Your task to perform on an android device: Go to Google Image 0: 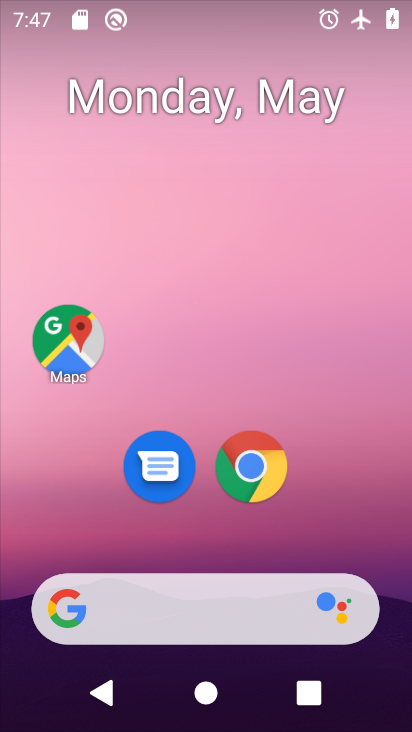
Step 0: drag from (258, 670) to (251, 99)
Your task to perform on an android device: Go to Google Image 1: 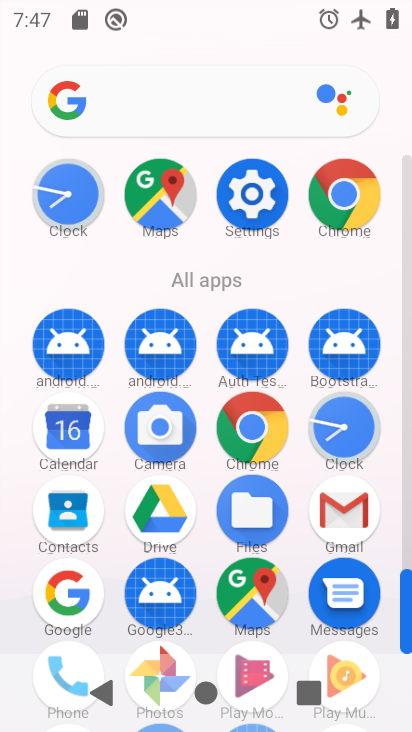
Step 1: drag from (255, 628) to (181, 125)
Your task to perform on an android device: Go to Google Image 2: 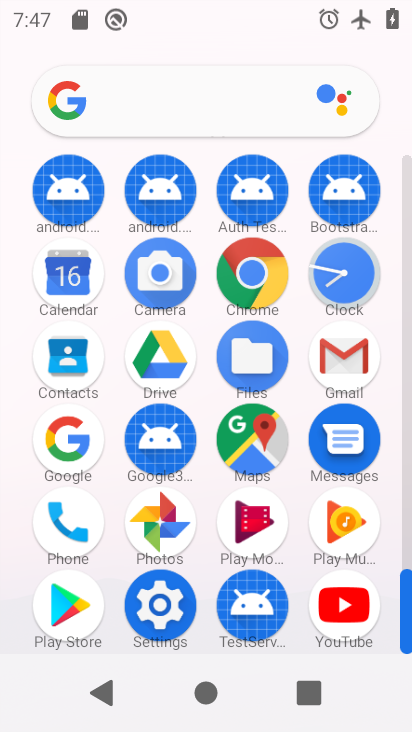
Step 2: drag from (240, 636) to (161, 131)
Your task to perform on an android device: Go to Google Image 3: 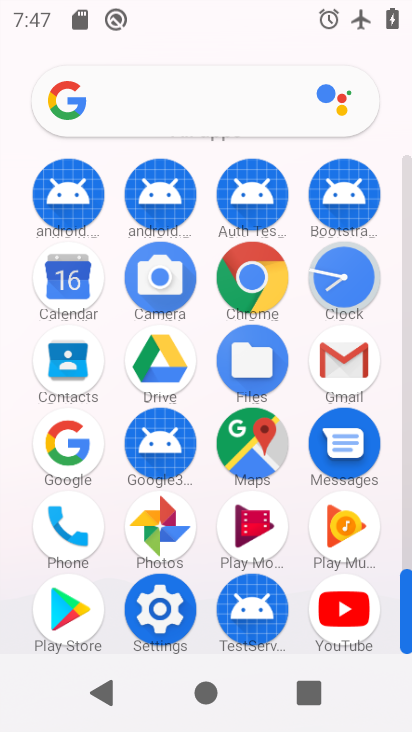
Step 3: click (67, 446)
Your task to perform on an android device: Go to Google Image 4: 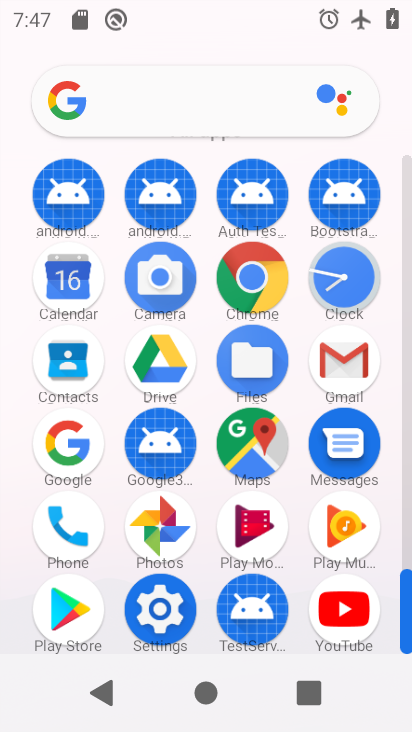
Step 4: click (68, 447)
Your task to perform on an android device: Go to Google Image 5: 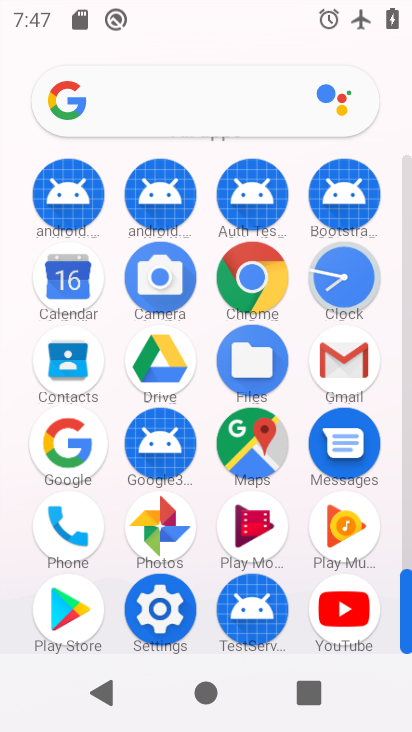
Step 5: click (68, 447)
Your task to perform on an android device: Go to Google Image 6: 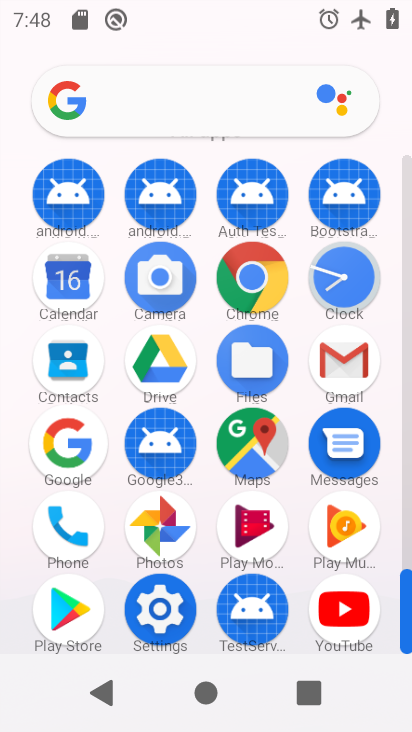
Step 6: click (68, 447)
Your task to perform on an android device: Go to Google Image 7: 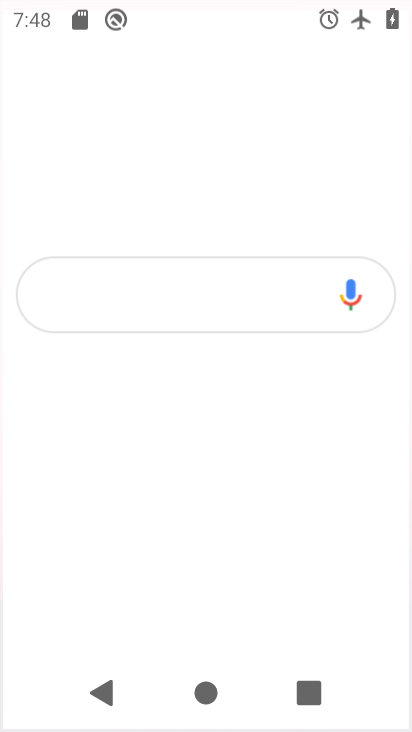
Step 7: click (64, 449)
Your task to perform on an android device: Go to Google Image 8: 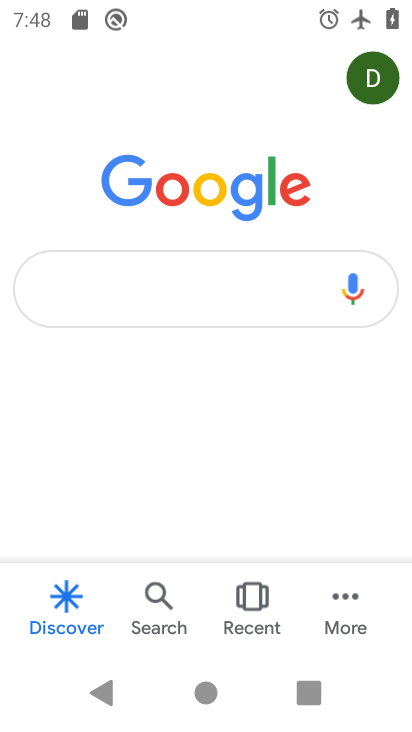
Step 8: task complete